Your task to perform on an android device: turn off smart reply in the gmail app Image 0: 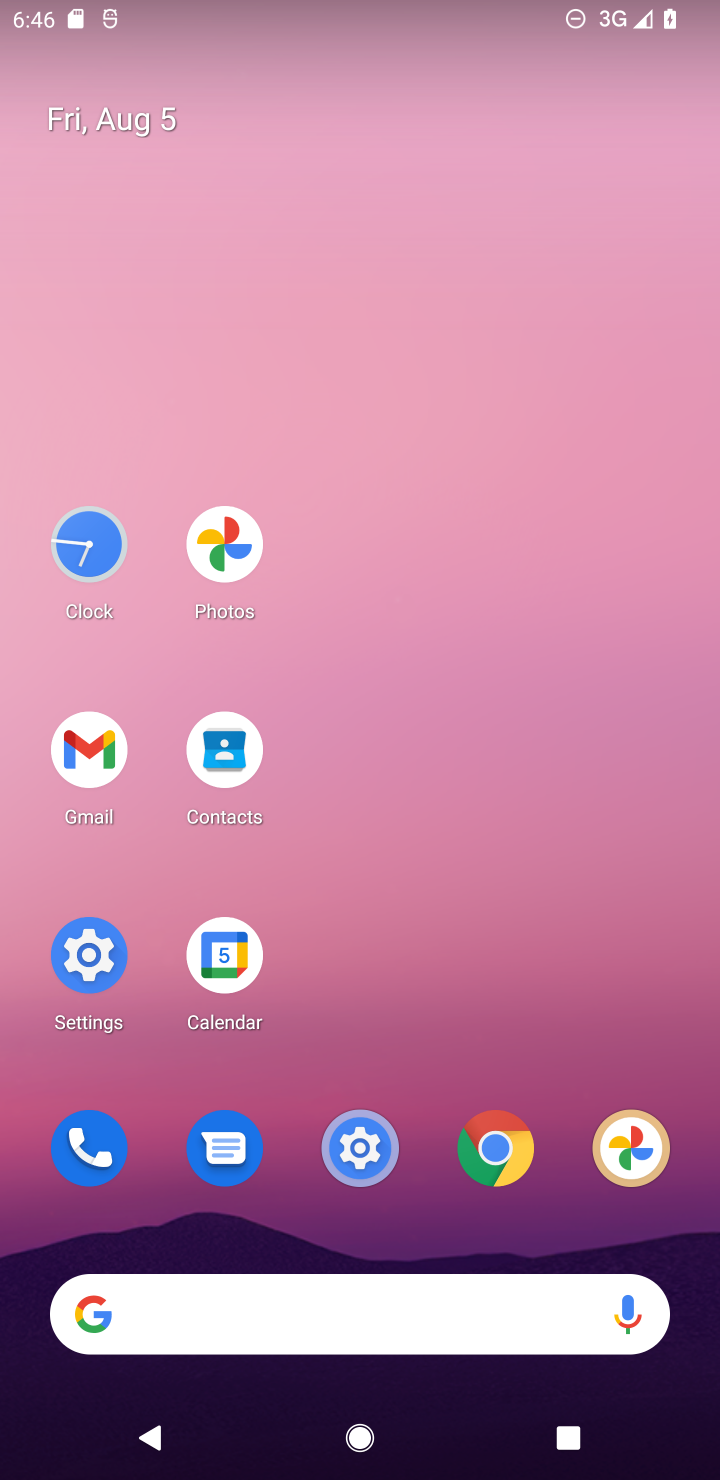
Step 0: press home button
Your task to perform on an android device: turn off smart reply in the gmail app Image 1: 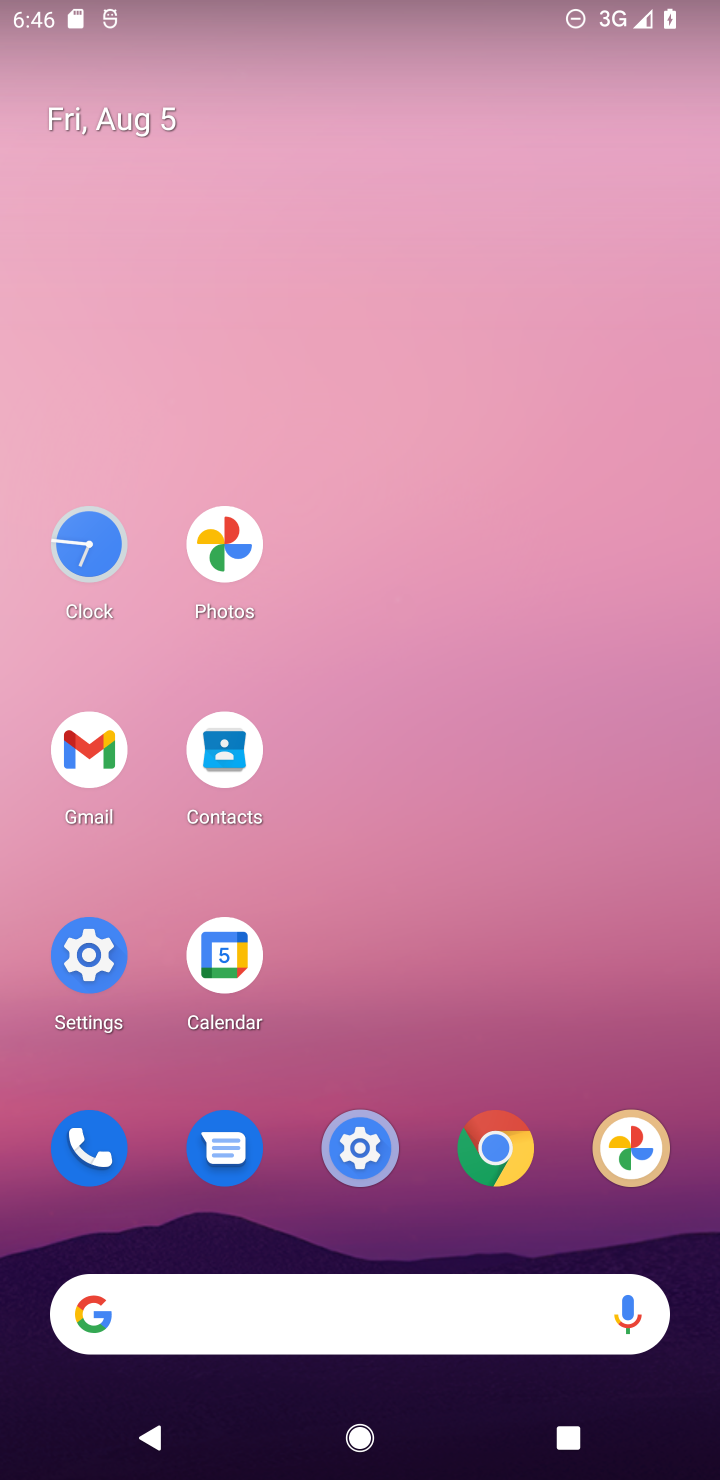
Step 1: click (91, 757)
Your task to perform on an android device: turn off smart reply in the gmail app Image 2: 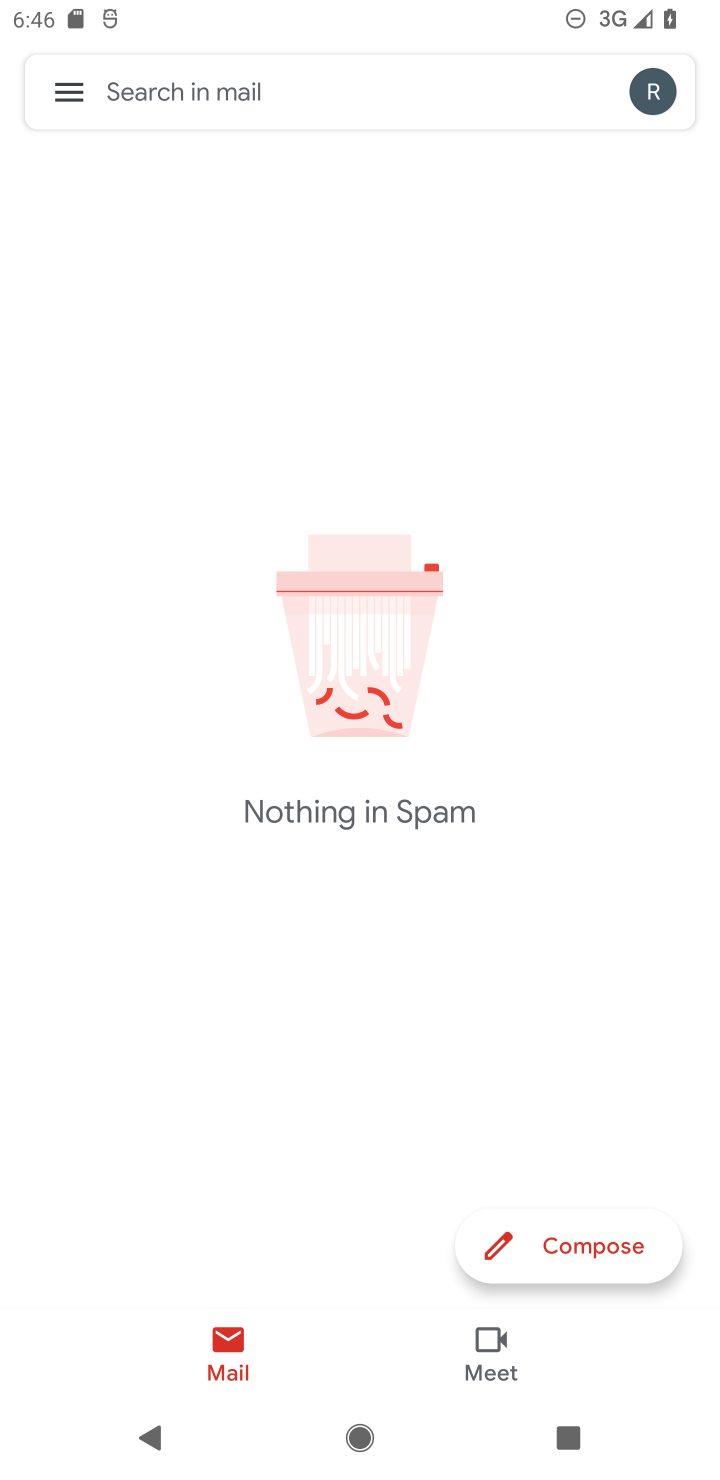
Step 2: click (59, 98)
Your task to perform on an android device: turn off smart reply in the gmail app Image 3: 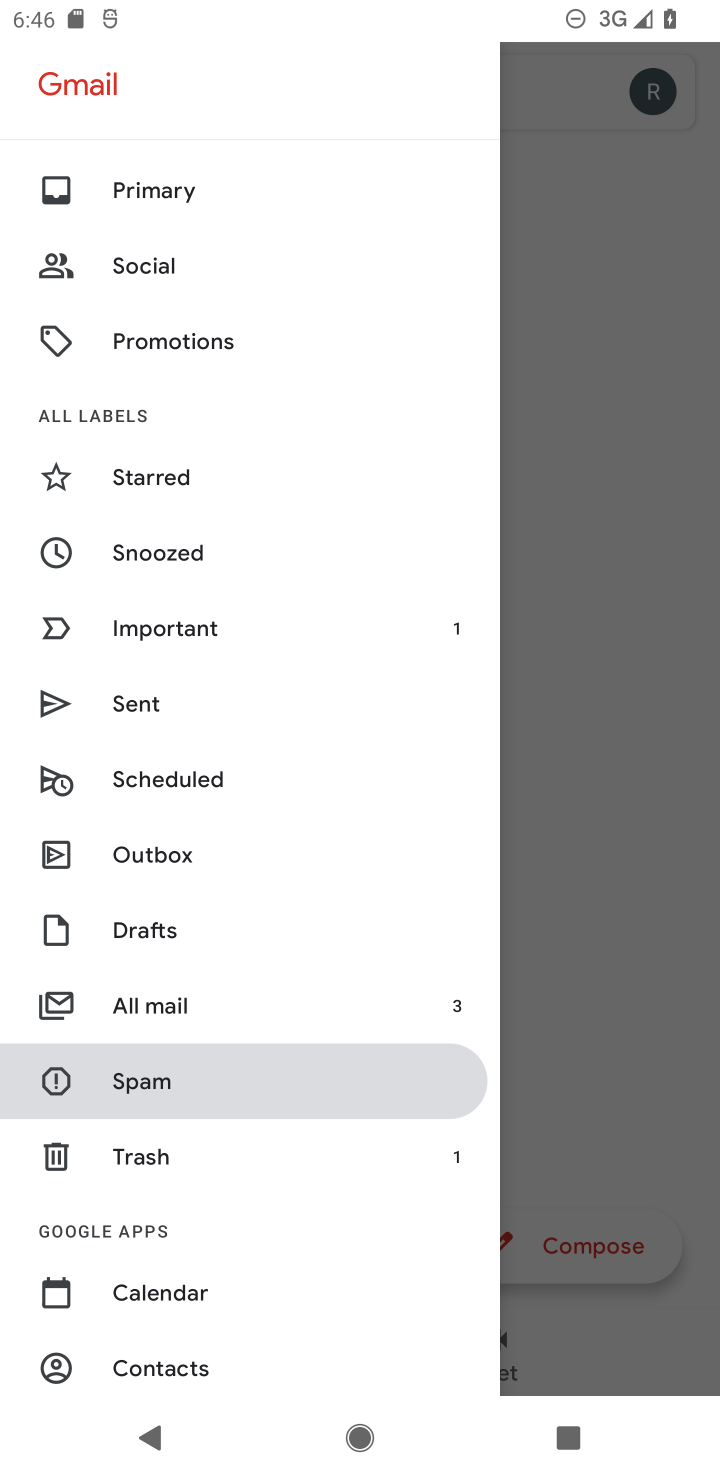
Step 3: drag from (244, 1274) to (215, 451)
Your task to perform on an android device: turn off smart reply in the gmail app Image 4: 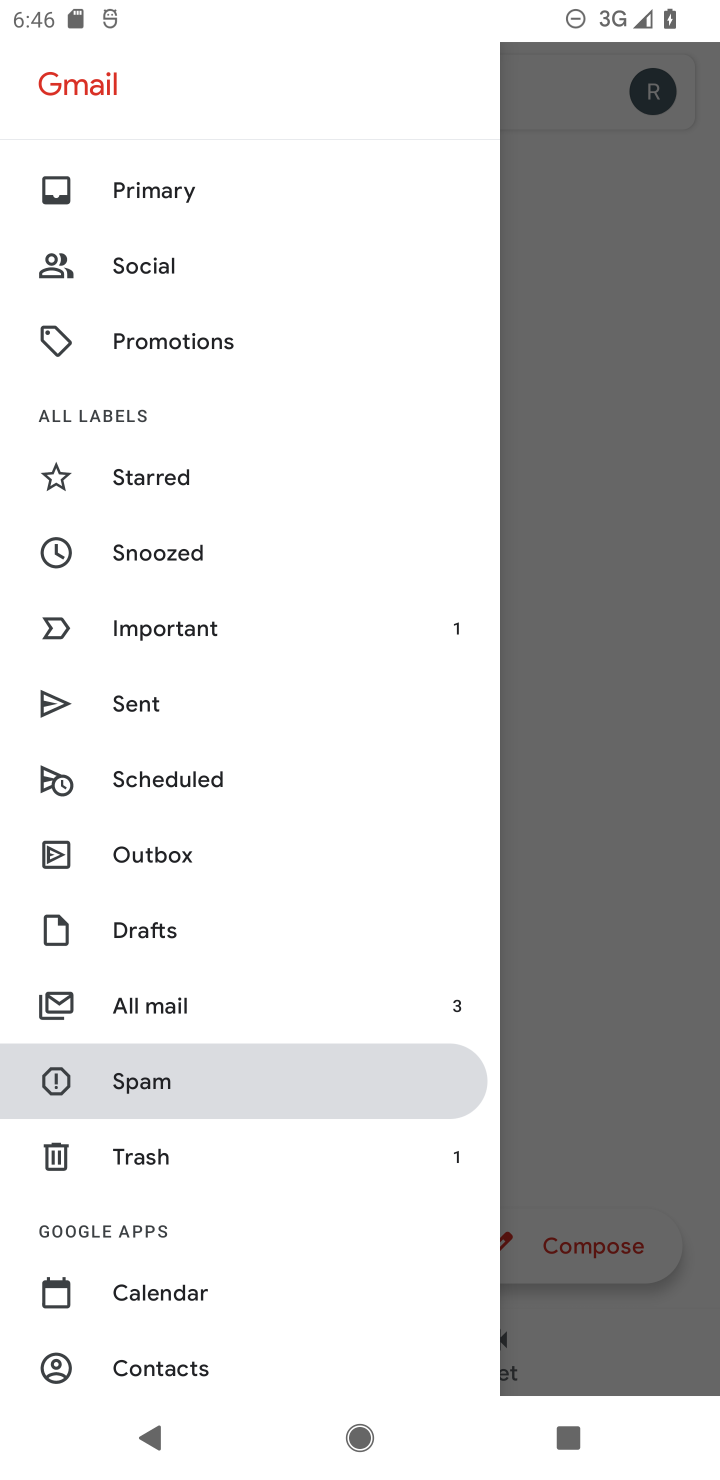
Step 4: drag from (255, 1264) to (338, 48)
Your task to perform on an android device: turn off smart reply in the gmail app Image 5: 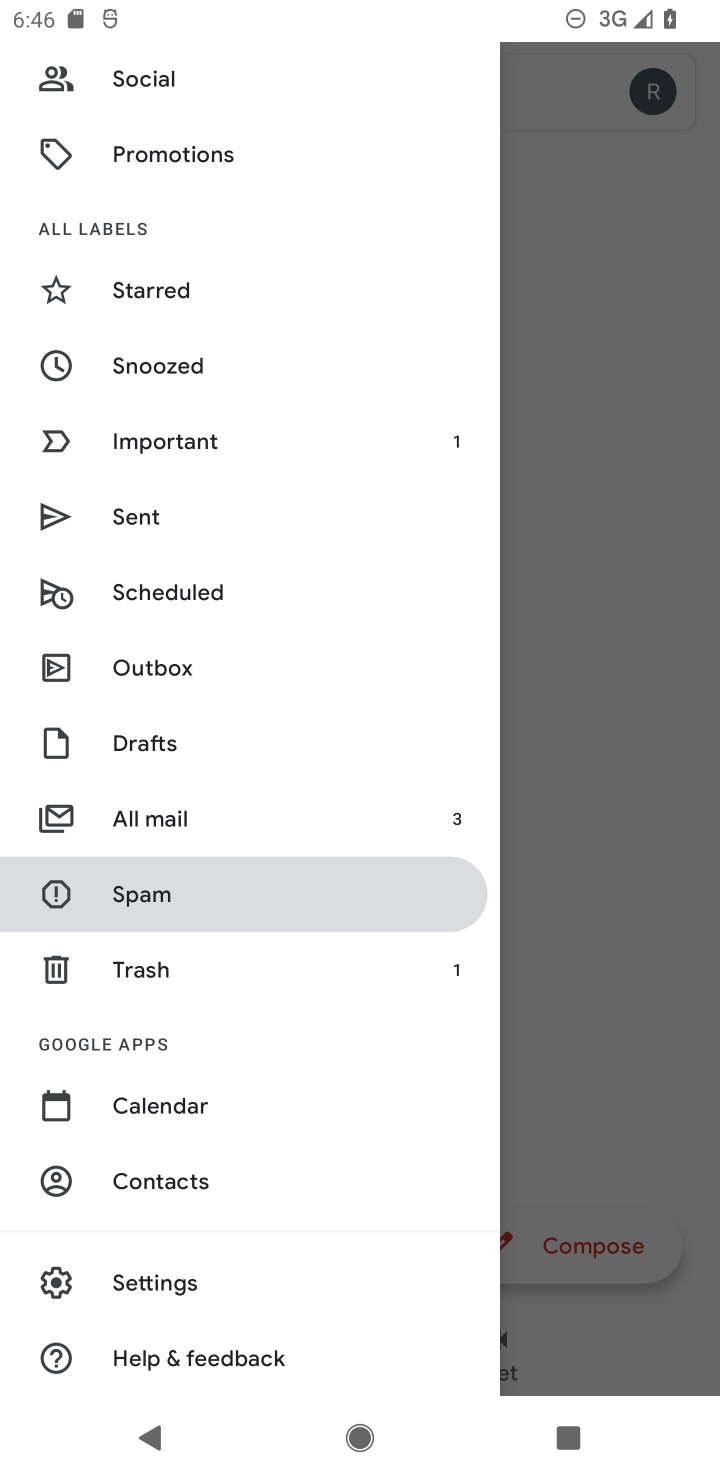
Step 5: click (167, 1268)
Your task to perform on an android device: turn off smart reply in the gmail app Image 6: 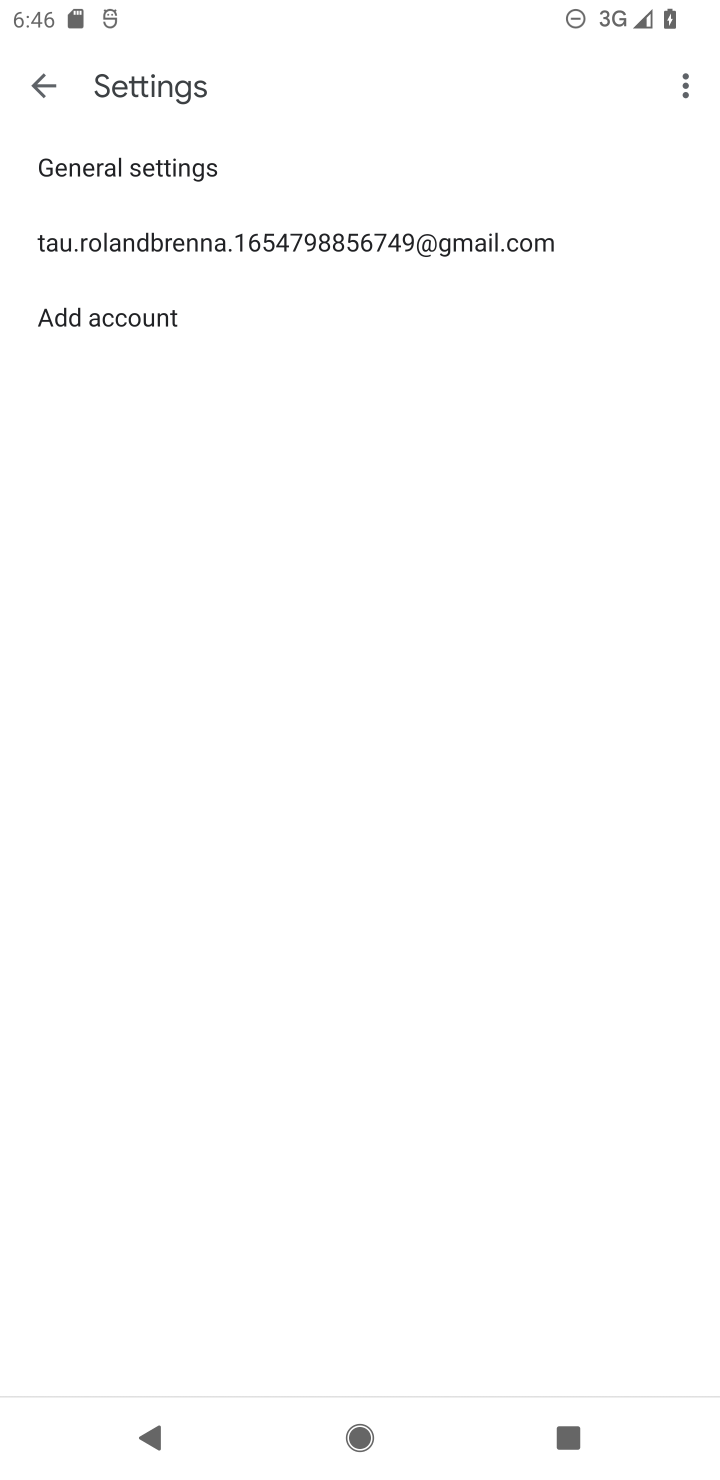
Step 6: click (245, 231)
Your task to perform on an android device: turn off smart reply in the gmail app Image 7: 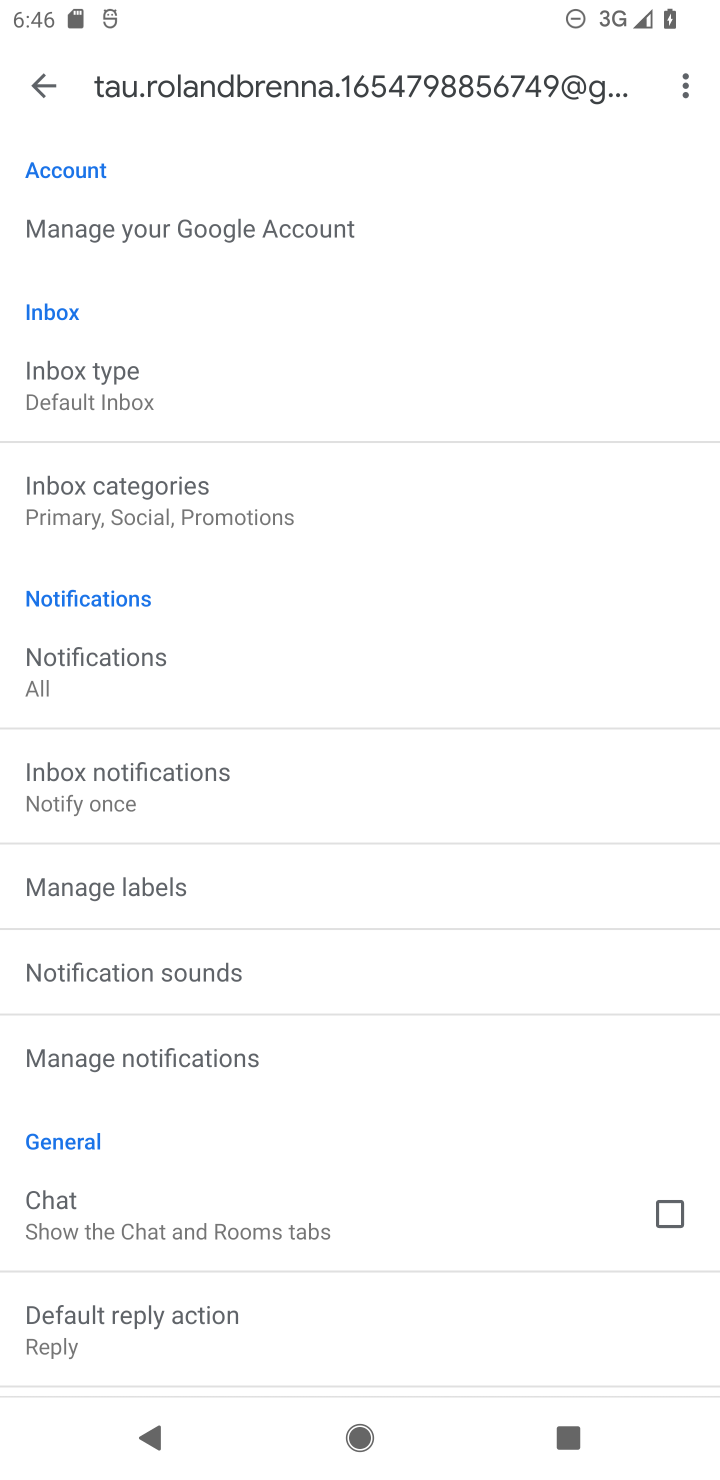
Step 7: drag from (354, 1158) to (293, 591)
Your task to perform on an android device: turn off smart reply in the gmail app Image 8: 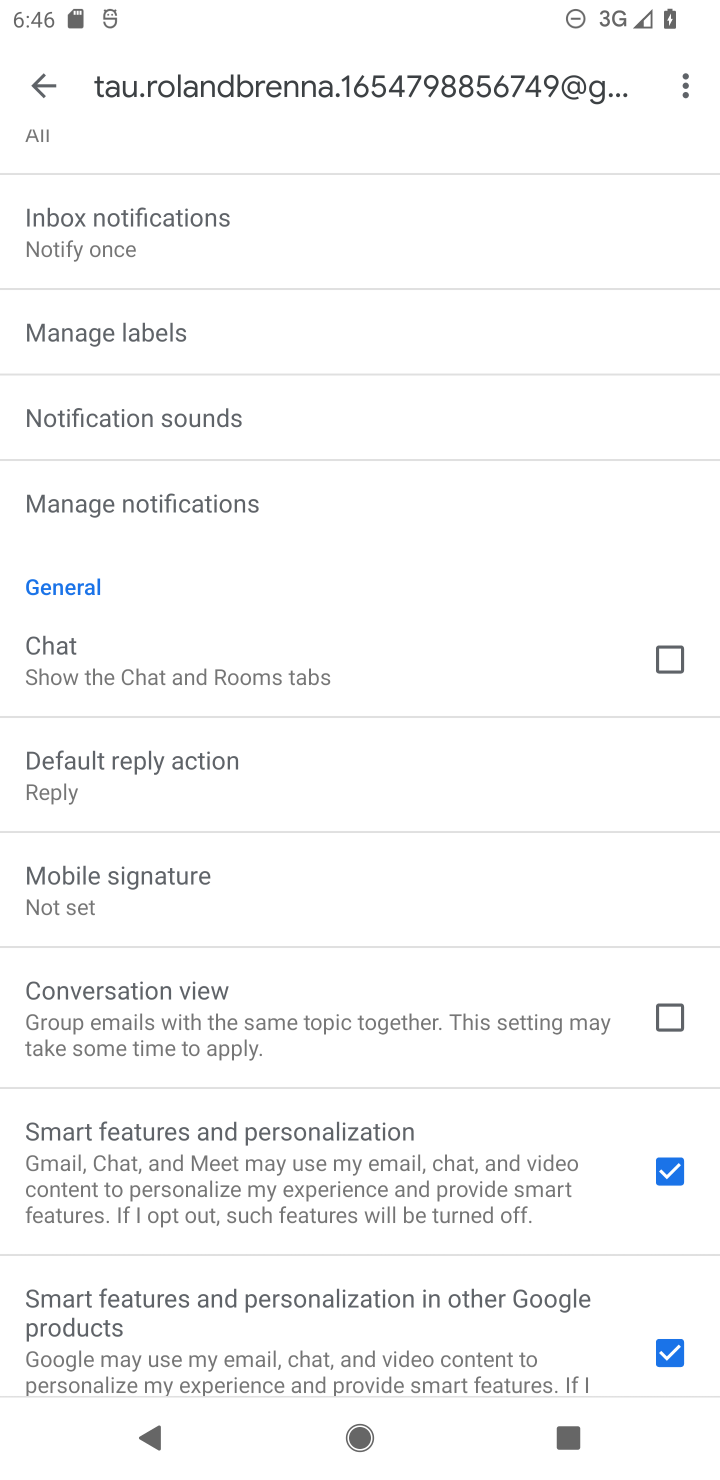
Step 8: drag from (362, 1234) to (255, 690)
Your task to perform on an android device: turn off smart reply in the gmail app Image 9: 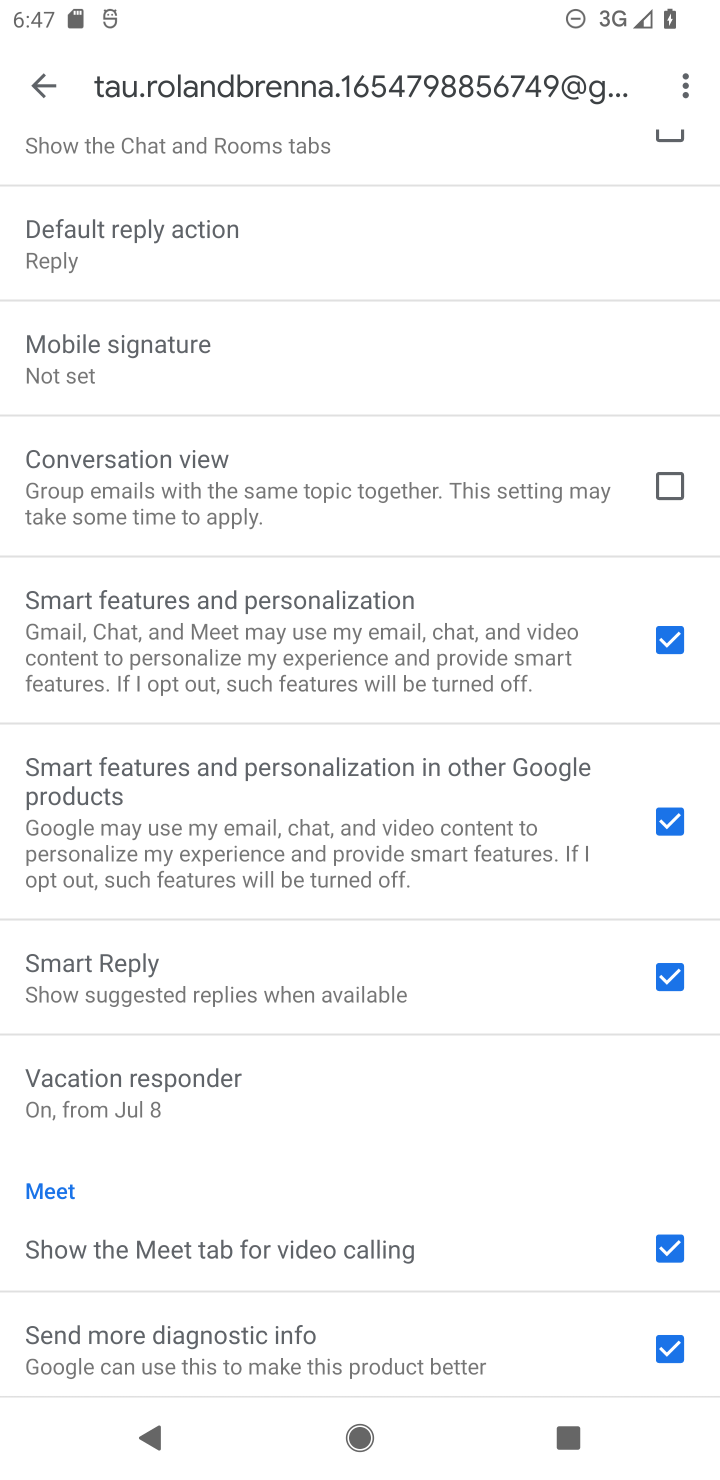
Step 9: click (667, 968)
Your task to perform on an android device: turn off smart reply in the gmail app Image 10: 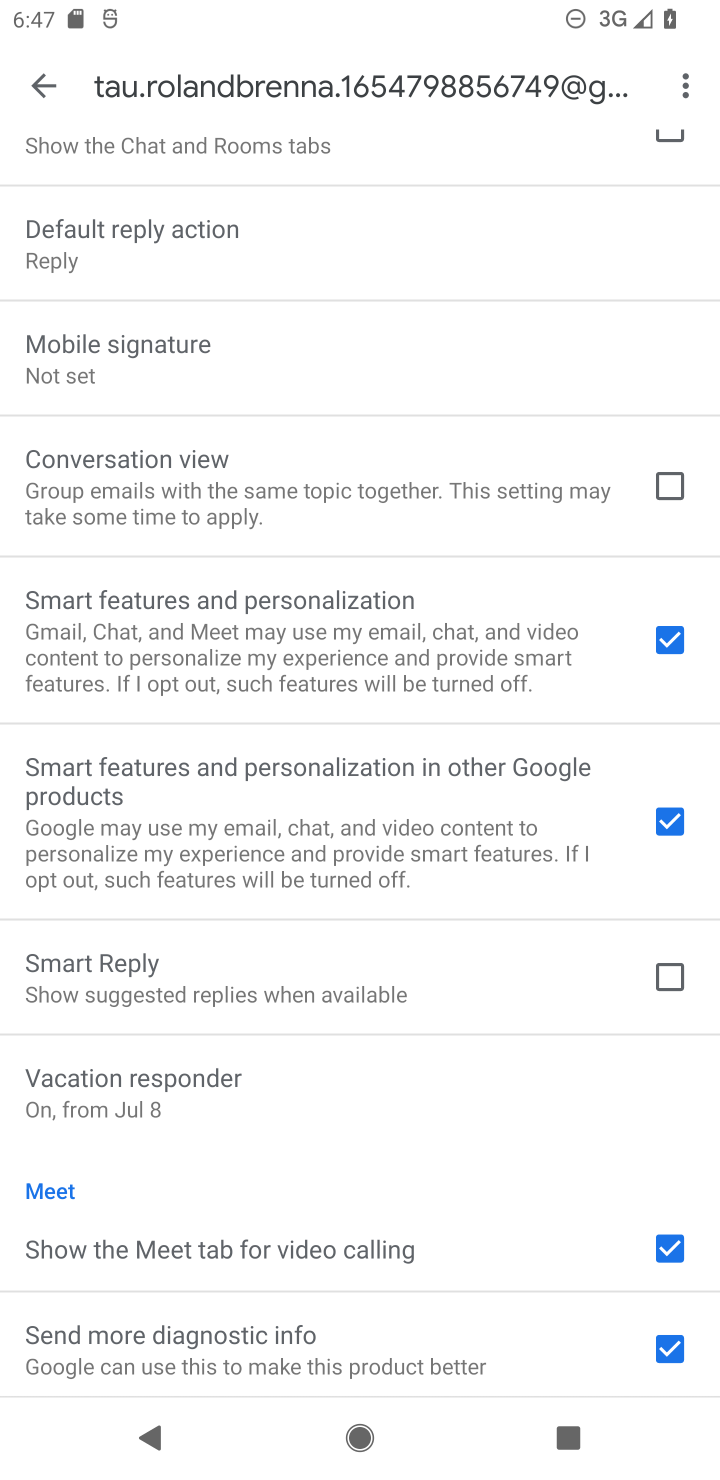
Step 10: task complete